Your task to perform on an android device: check battery use Image 0: 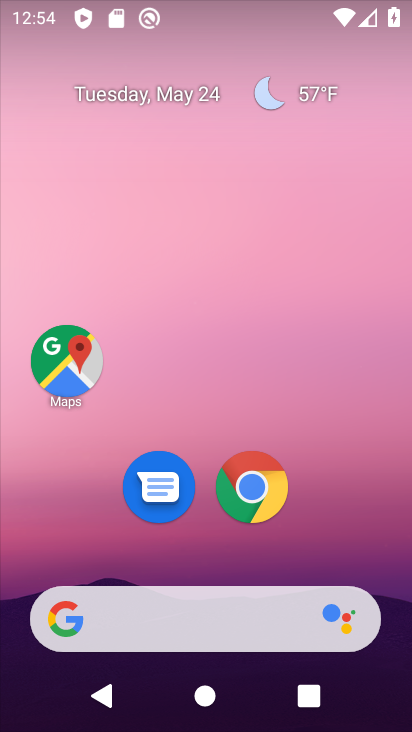
Step 0: drag from (229, 687) to (221, 113)
Your task to perform on an android device: check battery use Image 1: 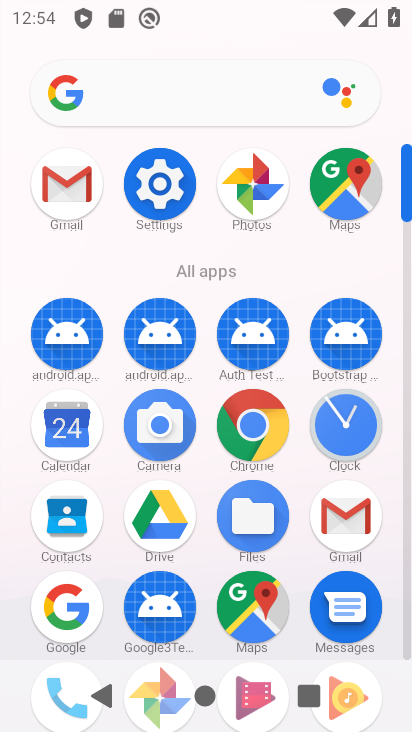
Step 1: click (150, 192)
Your task to perform on an android device: check battery use Image 2: 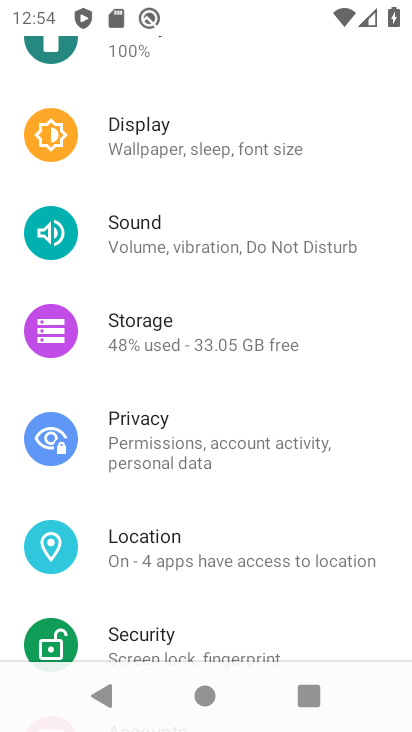
Step 2: drag from (195, 611) to (192, 180)
Your task to perform on an android device: check battery use Image 3: 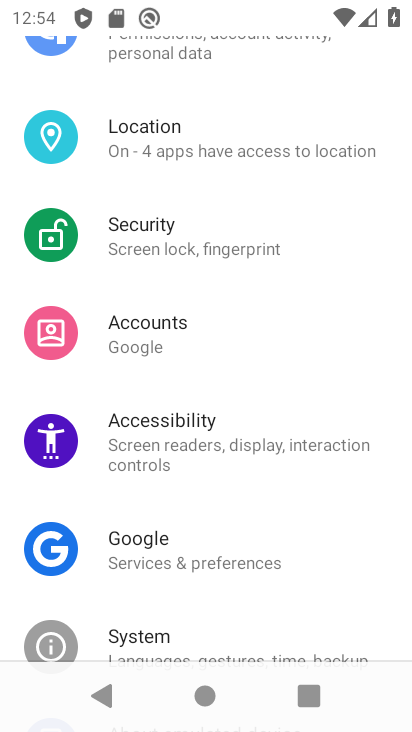
Step 3: drag from (230, 211) to (250, 607)
Your task to perform on an android device: check battery use Image 4: 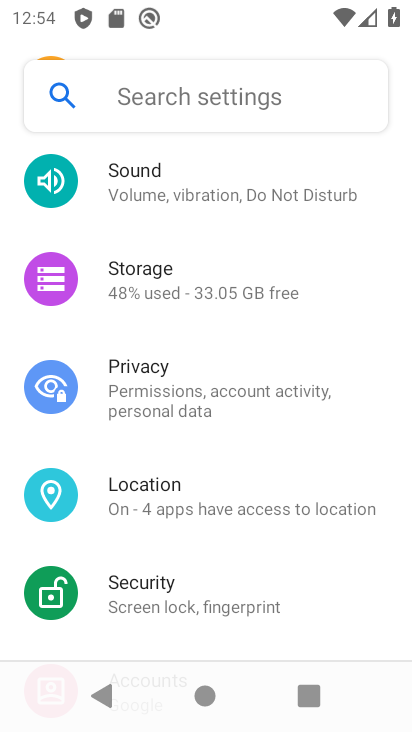
Step 4: drag from (218, 233) to (233, 558)
Your task to perform on an android device: check battery use Image 5: 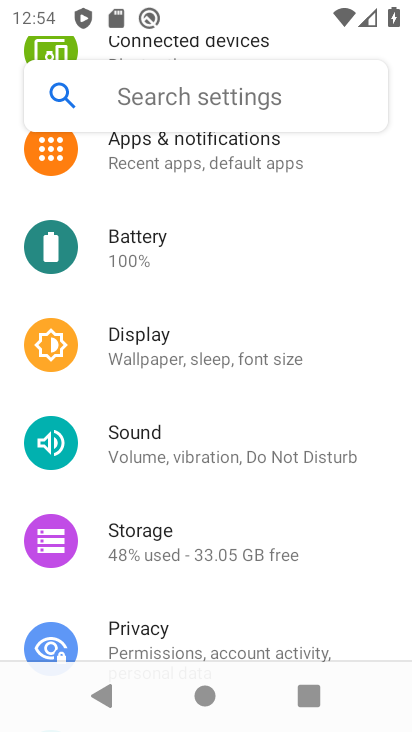
Step 5: click (133, 243)
Your task to perform on an android device: check battery use Image 6: 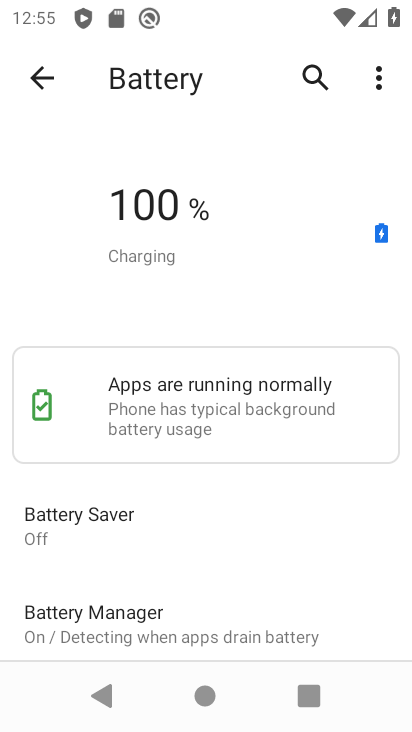
Step 6: task complete